Your task to perform on an android device: Go to privacy settings Image 0: 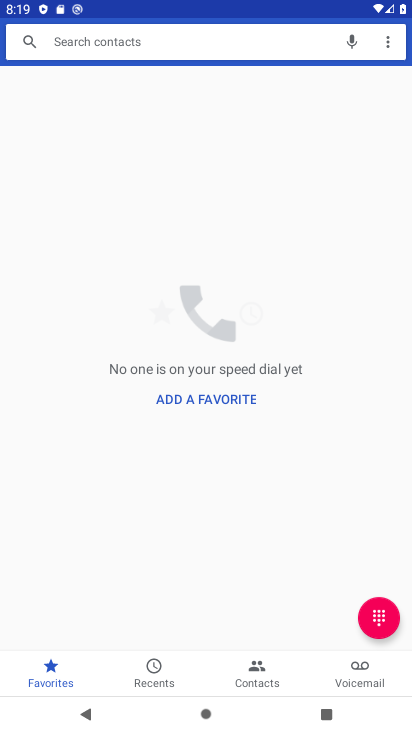
Step 0: press home button
Your task to perform on an android device: Go to privacy settings Image 1: 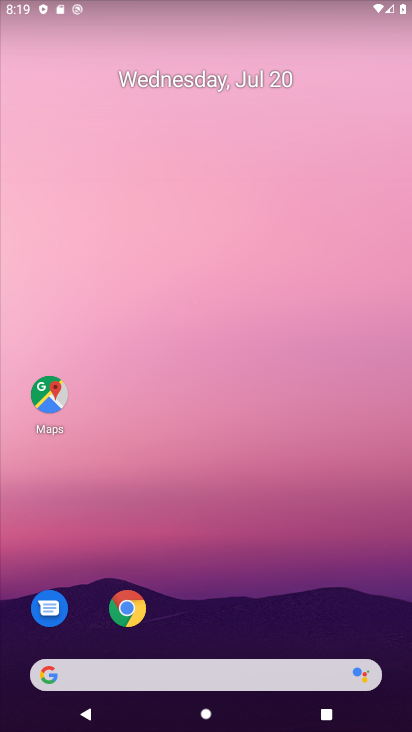
Step 1: drag from (238, 598) to (334, 24)
Your task to perform on an android device: Go to privacy settings Image 2: 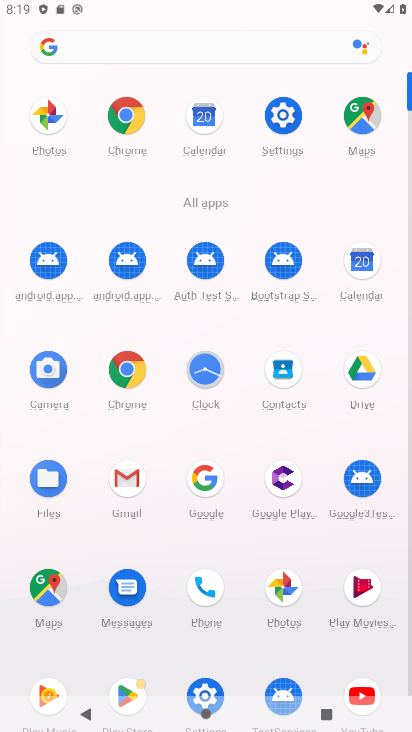
Step 2: click (296, 131)
Your task to perform on an android device: Go to privacy settings Image 3: 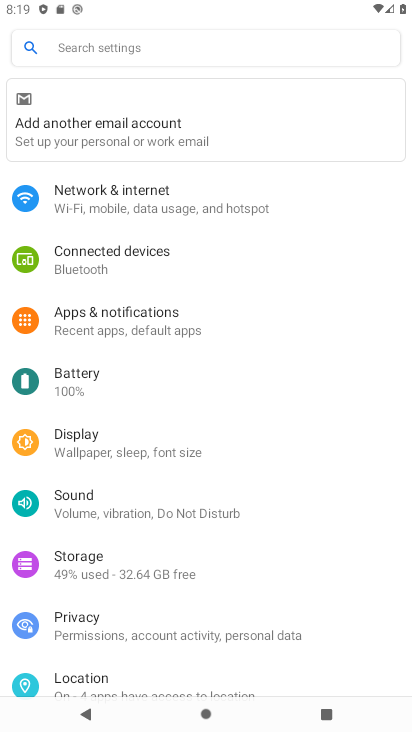
Step 3: click (106, 646)
Your task to perform on an android device: Go to privacy settings Image 4: 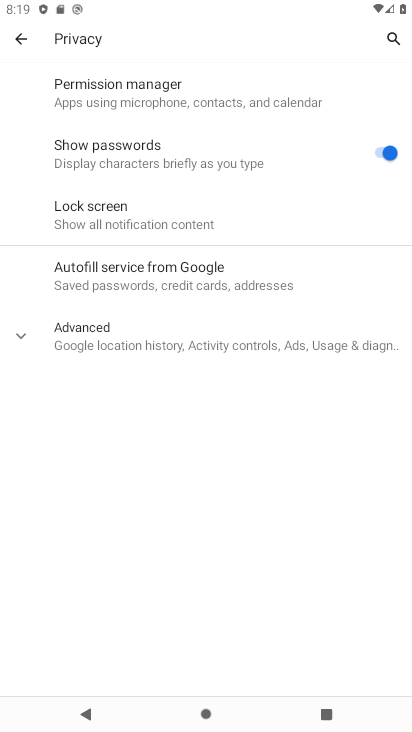
Step 4: task complete